Your task to perform on an android device: uninstall "Pluto TV - Live TV and Movies" Image 0: 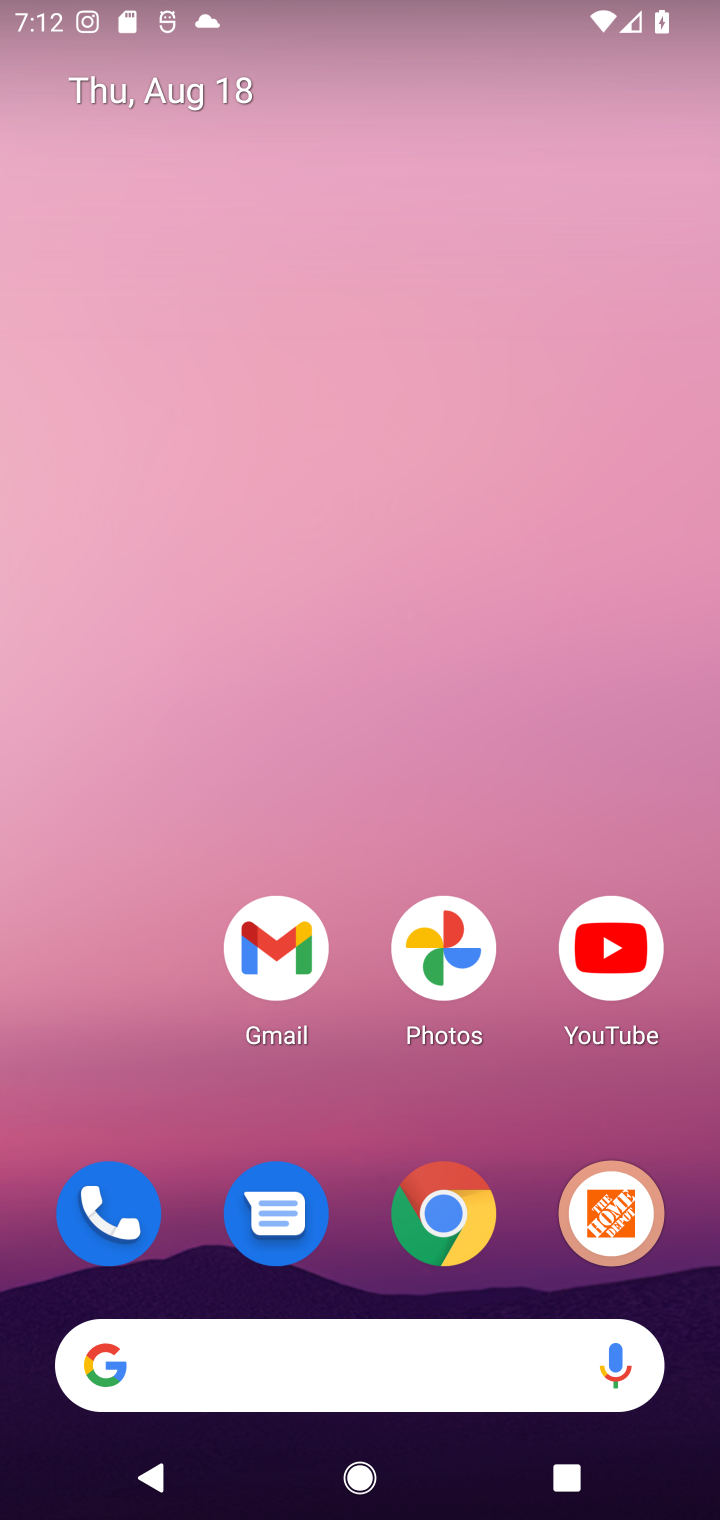
Step 0: press home button
Your task to perform on an android device: uninstall "Pluto TV - Live TV and Movies" Image 1: 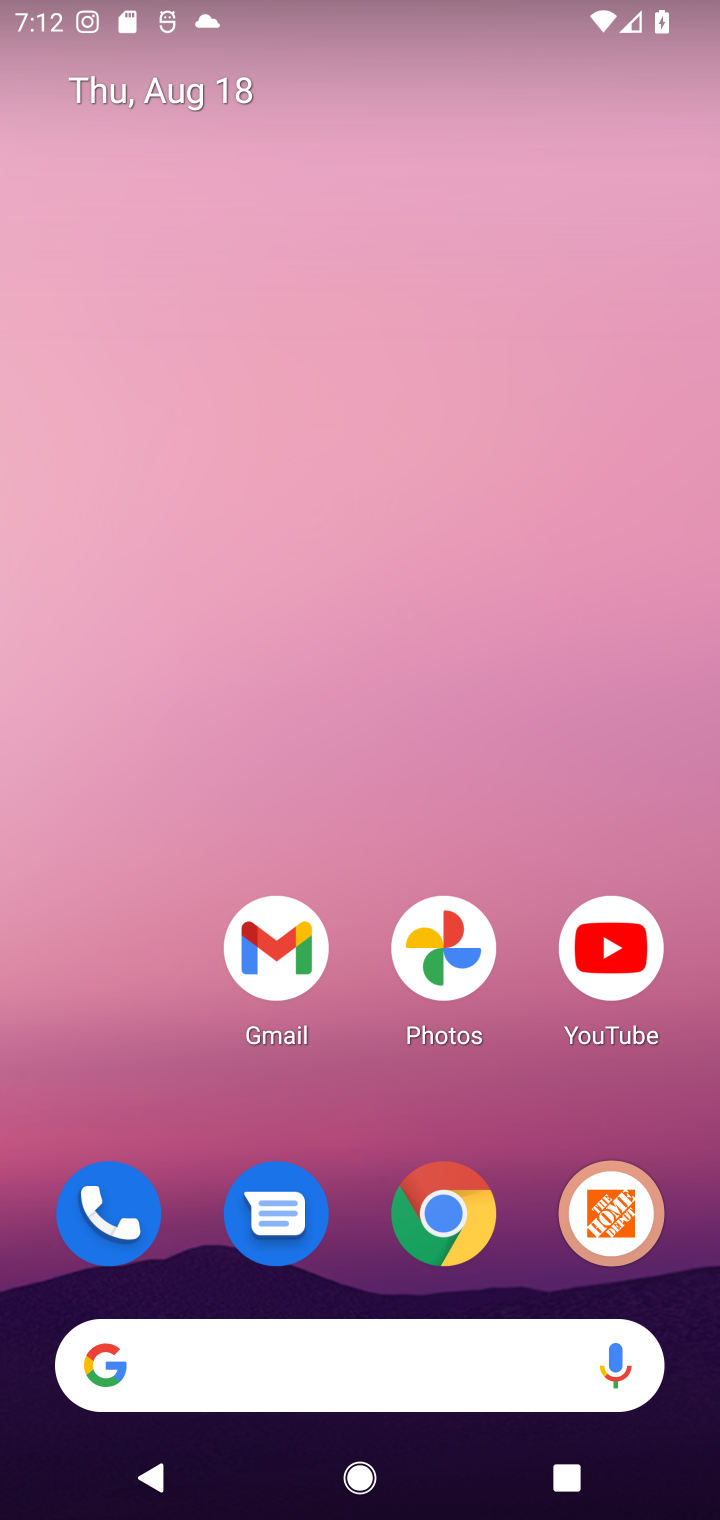
Step 1: drag from (353, 1129) to (340, 151)
Your task to perform on an android device: uninstall "Pluto TV - Live TV and Movies" Image 2: 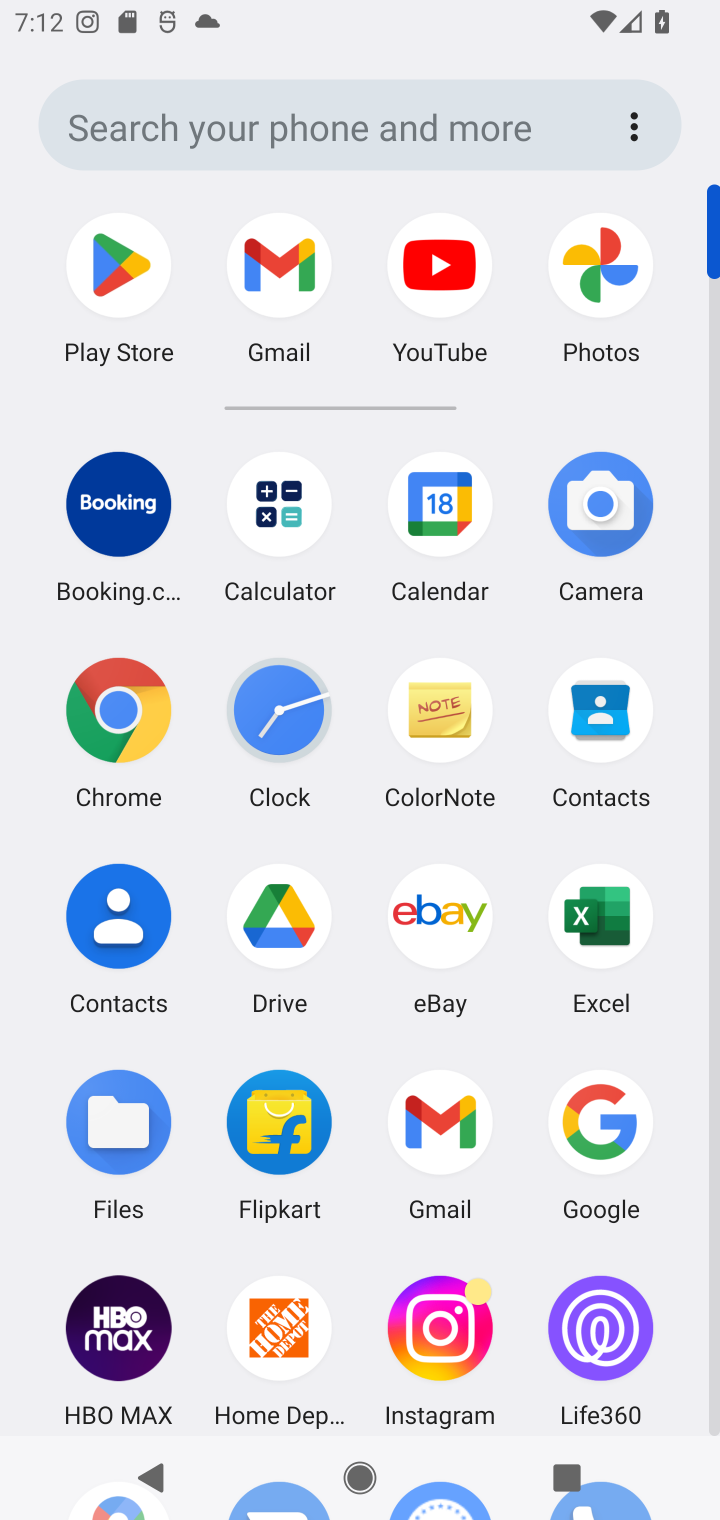
Step 2: click (114, 260)
Your task to perform on an android device: uninstall "Pluto TV - Live TV and Movies" Image 3: 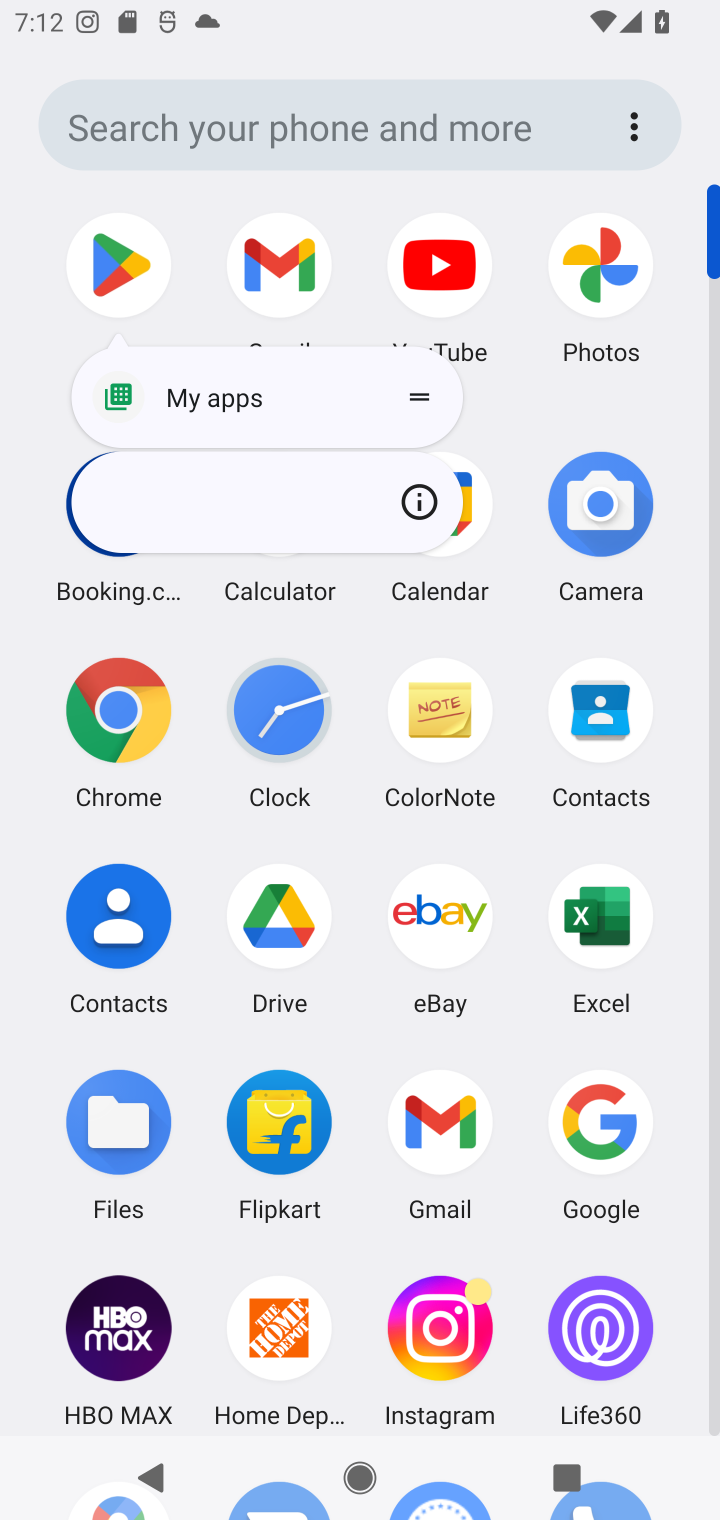
Step 3: click (118, 249)
Your task to perform on an android device: uninstall "Pluto TV - Live TV and Movies" Image 4: 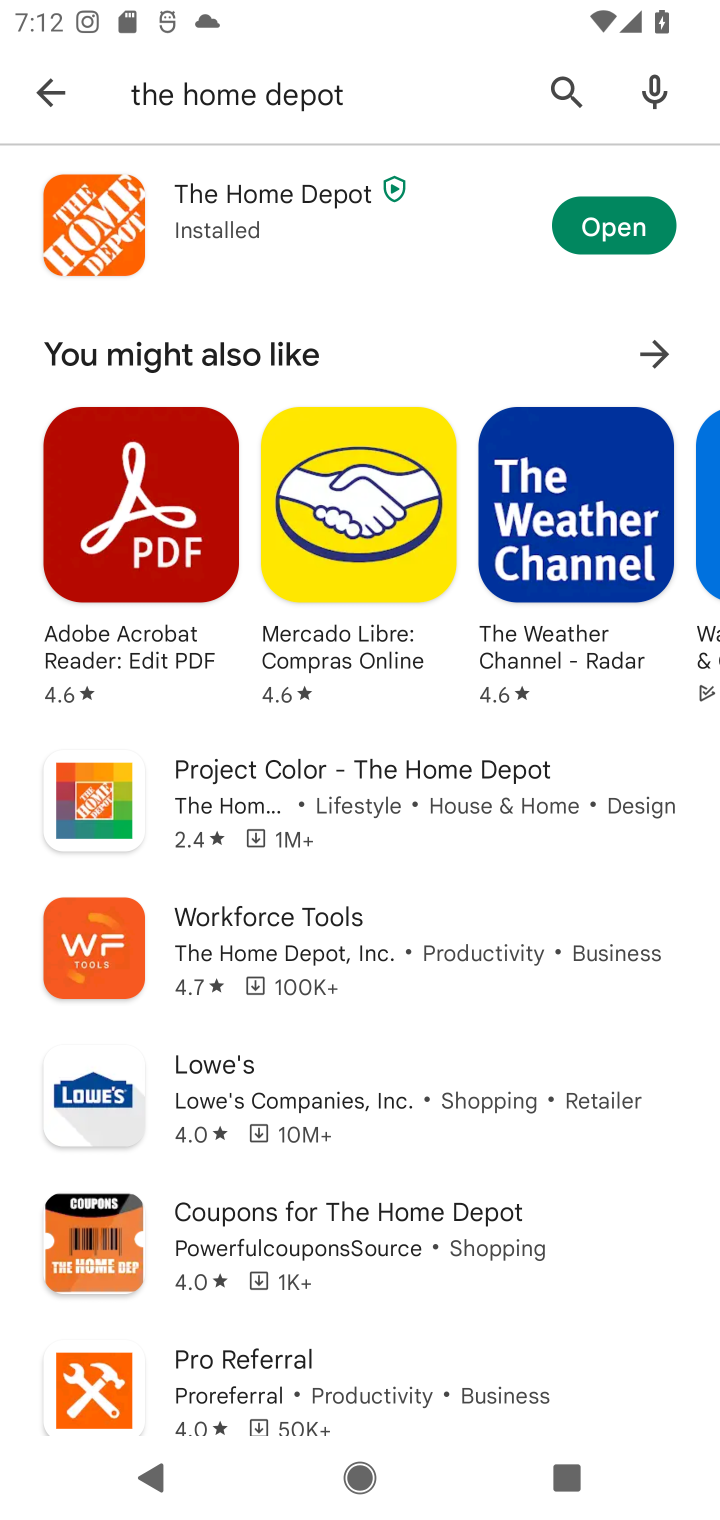
Step 4: click (554, 77)
Your task to perform on an android device: uninstall "Pluto TV - Live TV and Movies" Image 5: 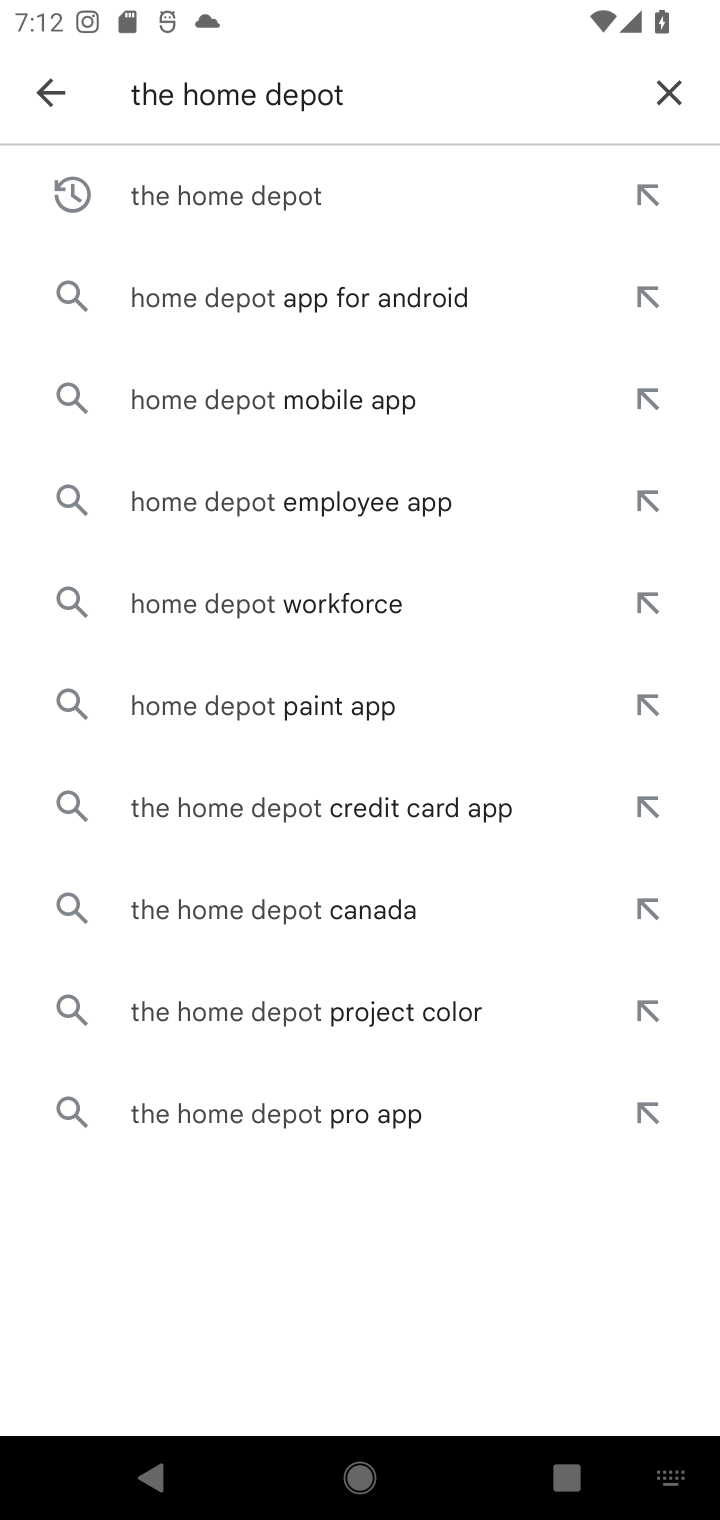
Step 5: click (672, 88)
Your task to perform on an android device: uninstall "Pluto TV - Live TV and Movies" Image 6: 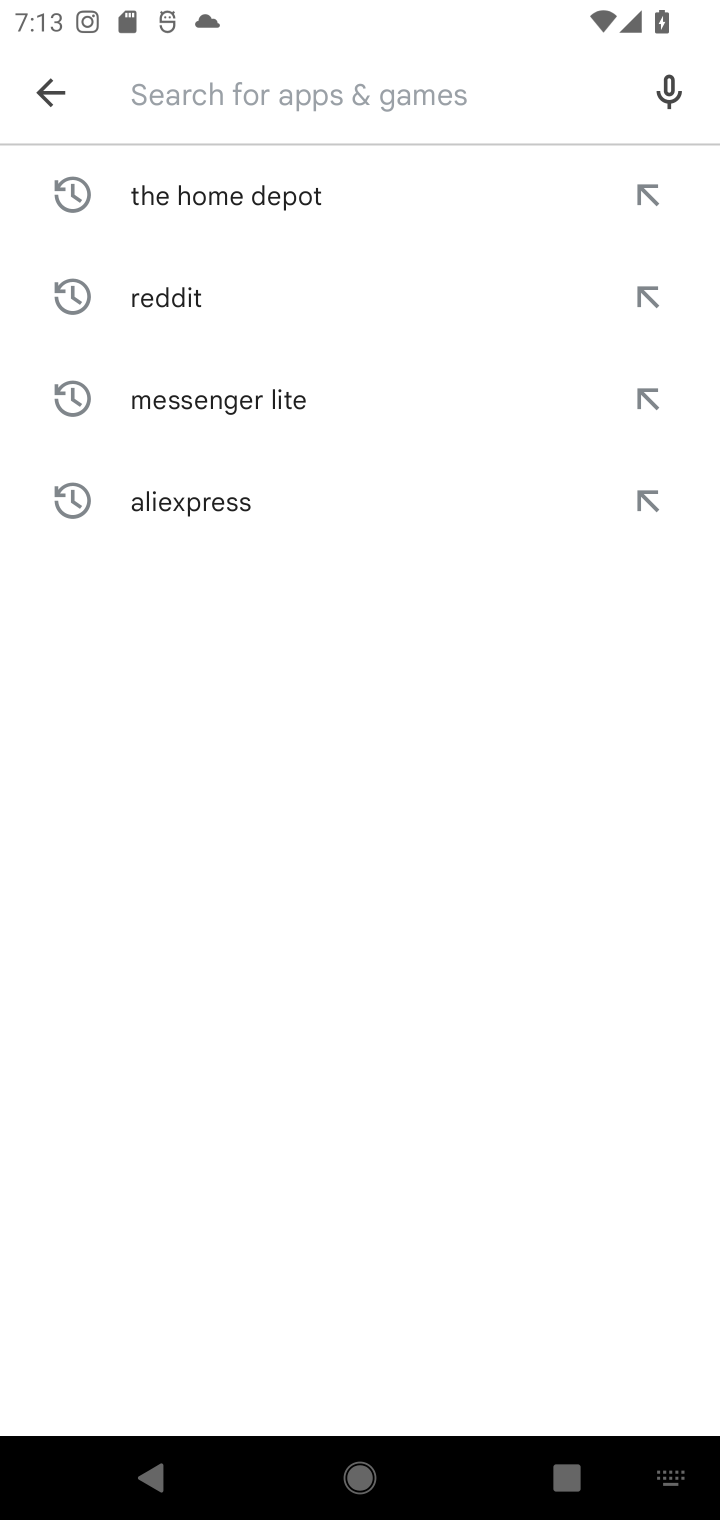
Step 6: type "Pluto TV - Live TV and Movies"
Your task to perform on an android device: uninstall "Pluto TV - Live TV and Movies" Image 7: 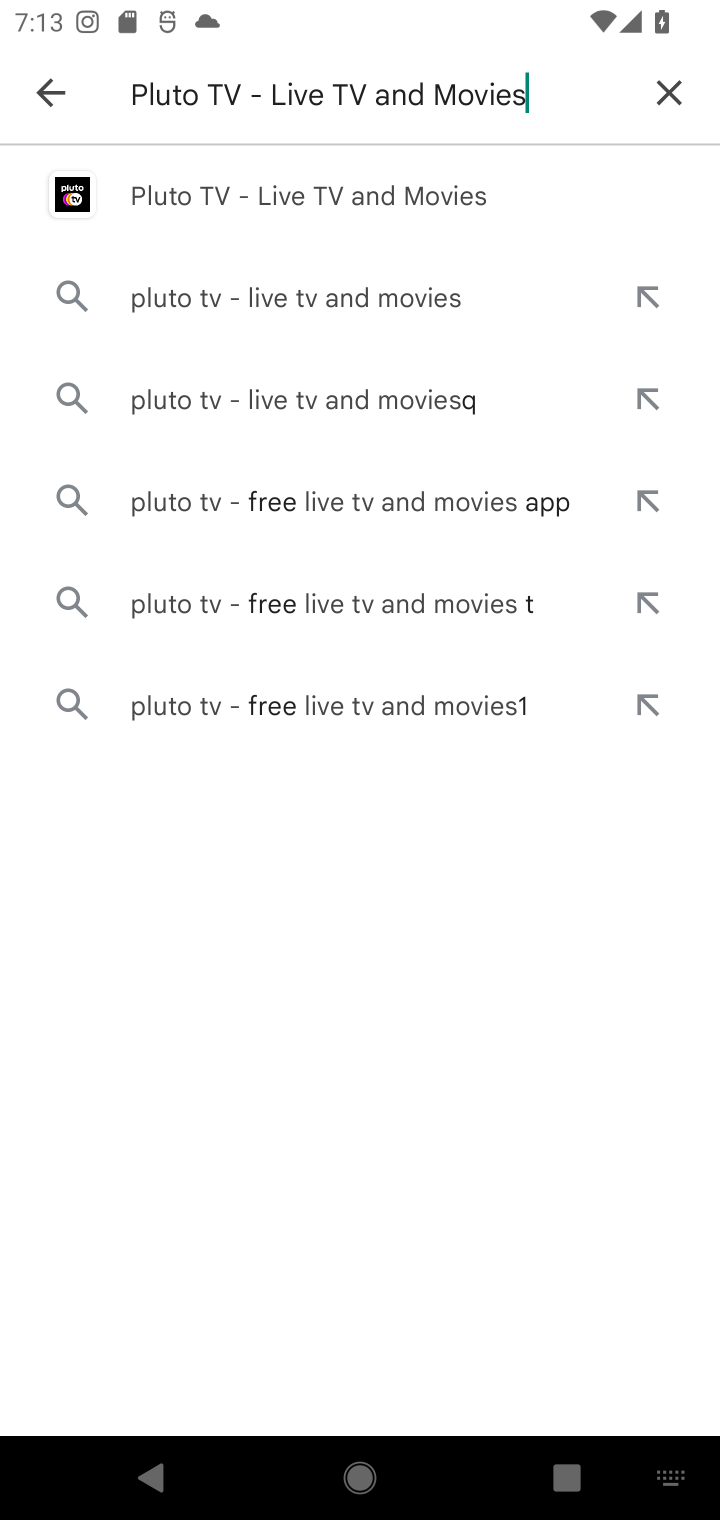
Step 7: click (247, 209)
Your task to perform on an android device: uninstall "Pluto TV - Live TV and Movies" Image 8: 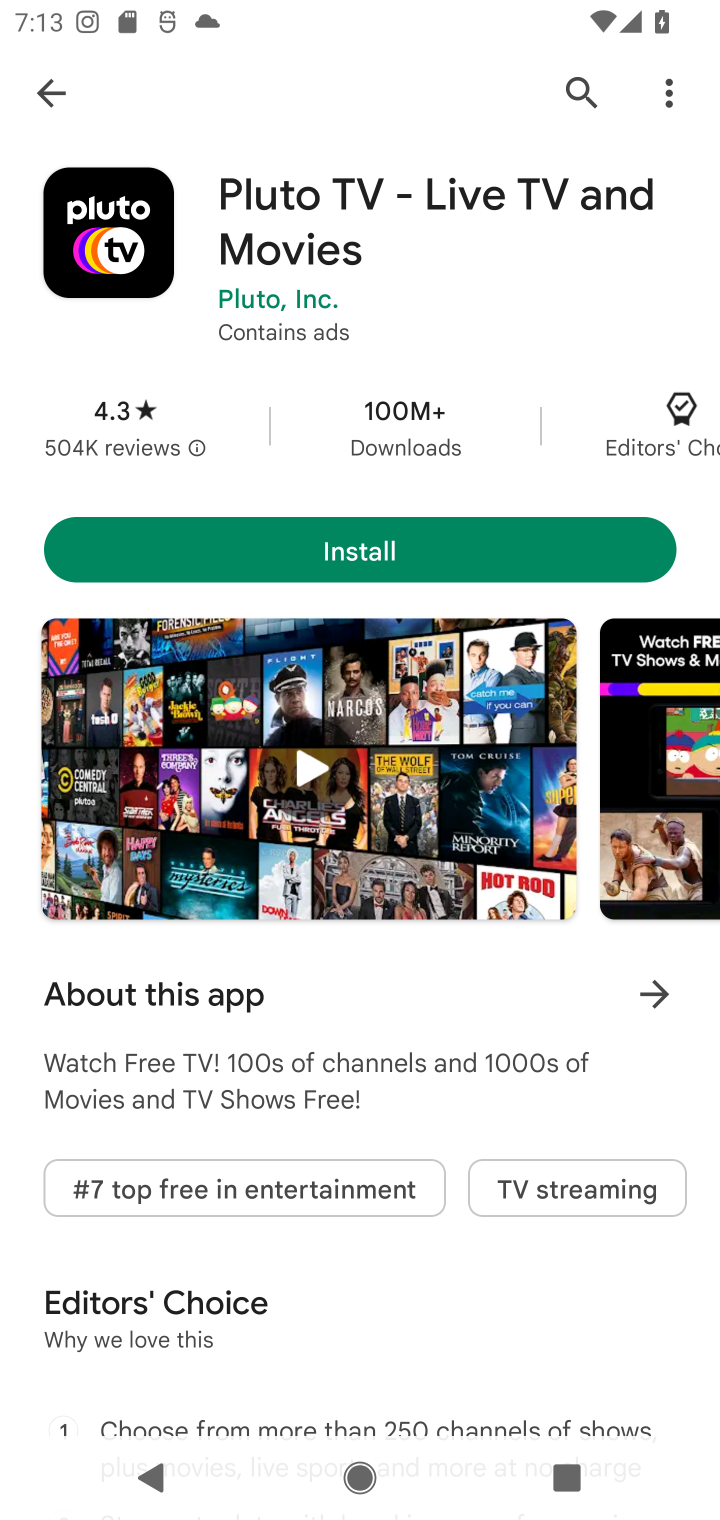
Step 8: task complete